Your task to perform on an android device: Go to Yahoo.com Image 0: 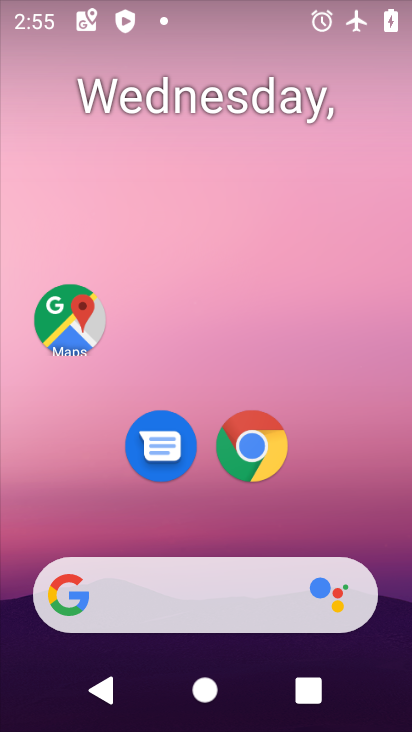
Step 0: click (247, 455)
Your task to perform on an android device: Go to Yahoo.com Image 1: 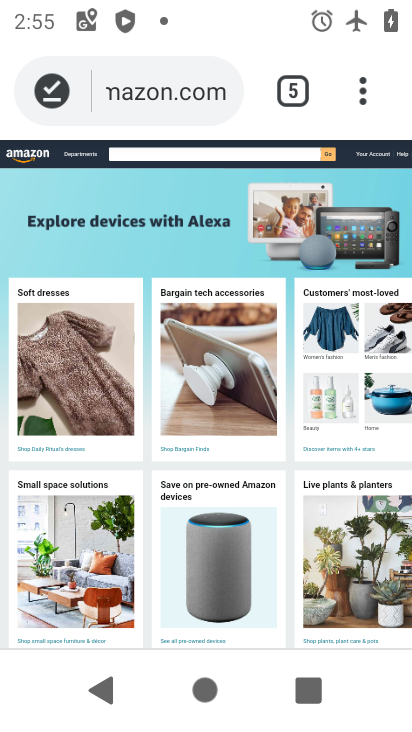
Step 1: click (297, 81)
Your task to perform on an android device: Go to Yahoo.com Image 2: 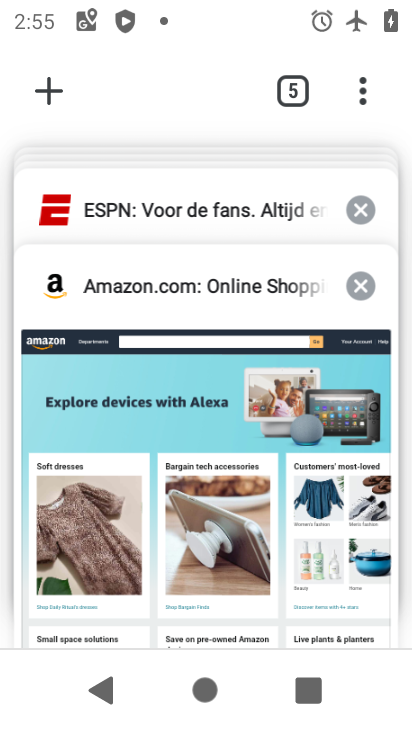
Step 2: click (54, 94)
Your task to perform on an android device: Go to Yahoo.com Image 3: 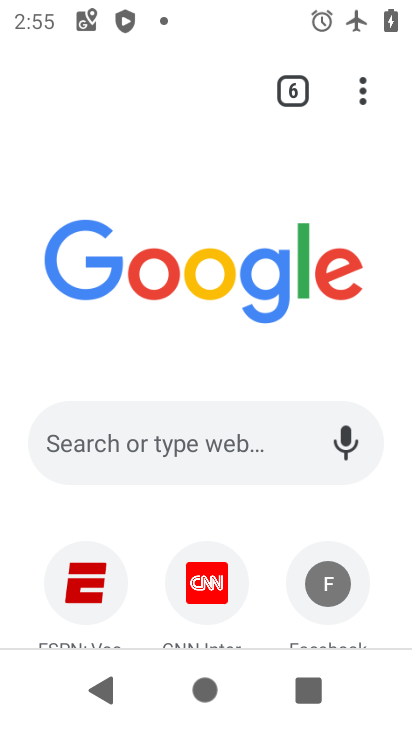
Step 3: drag from (222, 521) to (295, 172)
Your task to perform on an android device: Go to Yahoo.com Image 4: 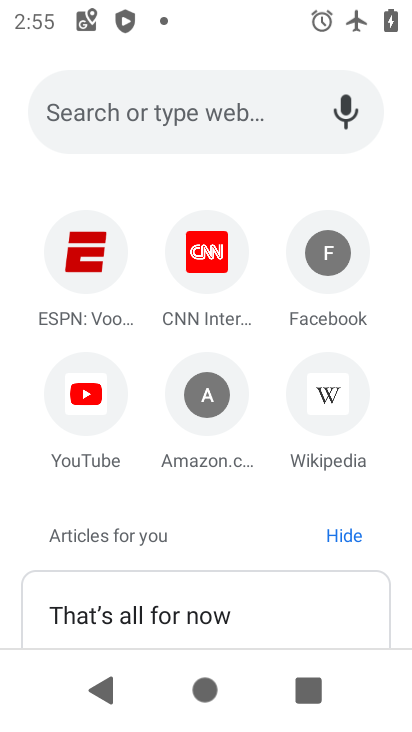
Step 4: drag from (243, 494) to (301, 209)
Your task to perform on an android device: Go to Yahoo.com Image 5: 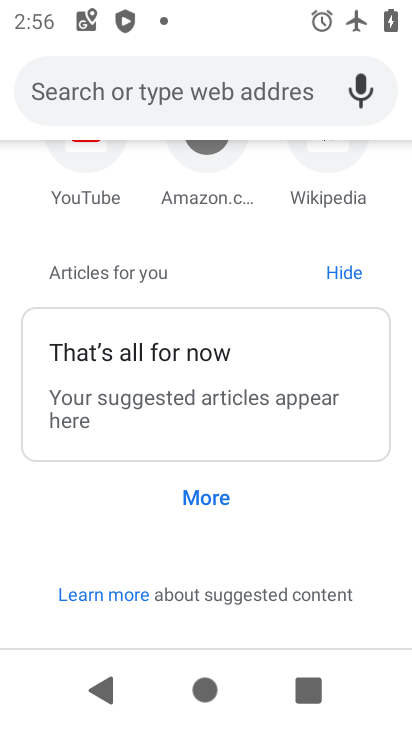
Step 5: drag from (249, 186) to (248, 475)
Your task to perform on an android device: Go to Yahoo.com Image 6: 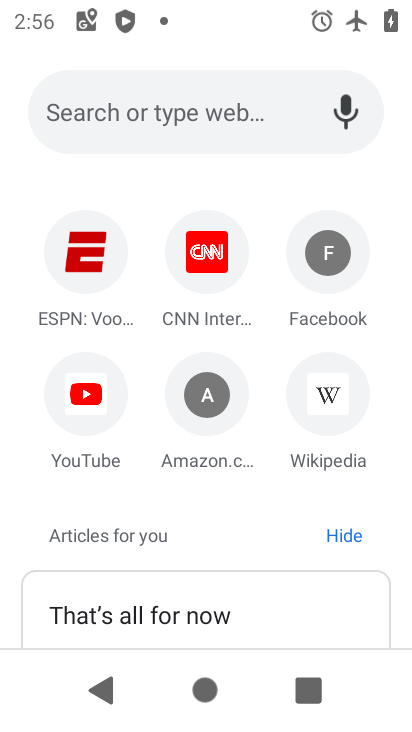
Step 6: click (234, 110)
Your task to perform on an android device: Go to Yahoo.com Image 7: 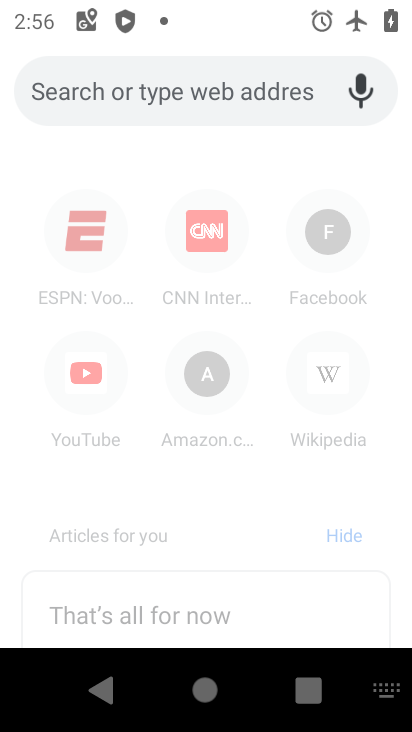
Step 7: type "Yahoo.com"
Your task to perform on an android device: Go to Yahoo.com Image 8: 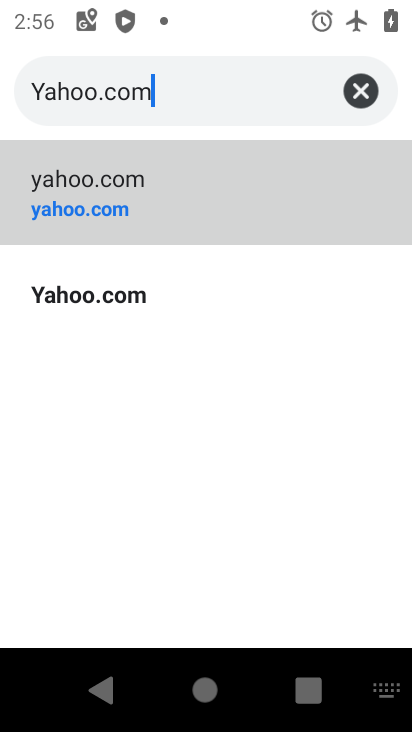
Step 8: click (179, 217)
Your task to perform on an android device: Go to Yahoo.com Image 9: 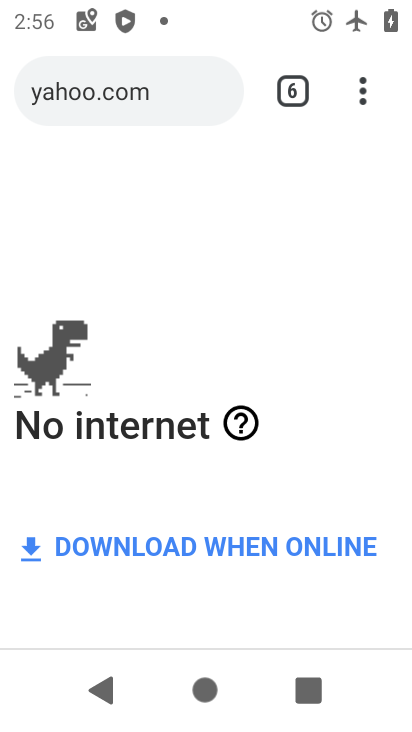
Step 9: task complete